Your task to perform on an android device: What is the recent news? Image 0: 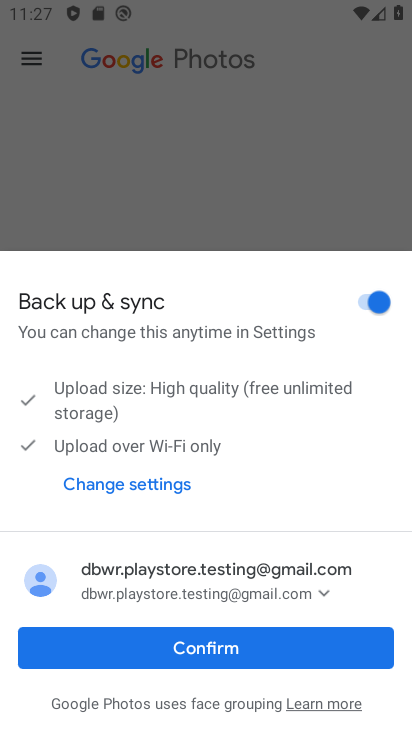
Step 0: press home button
Your task to perform on an android device: What is the recent news? Image 1: 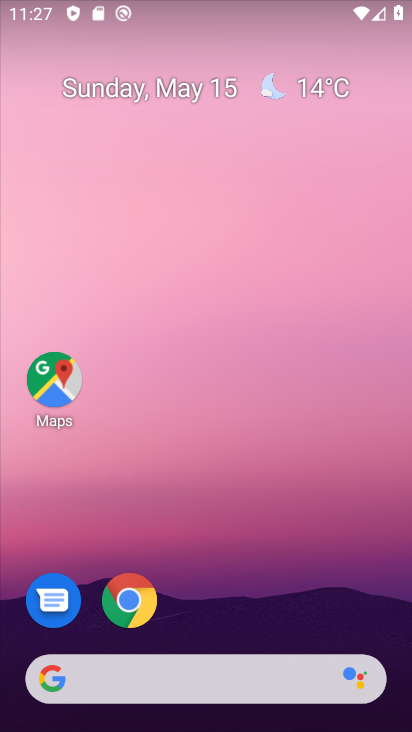
Step 1: task complete